Your task to perform on an android device: Go to display settings Image 0: 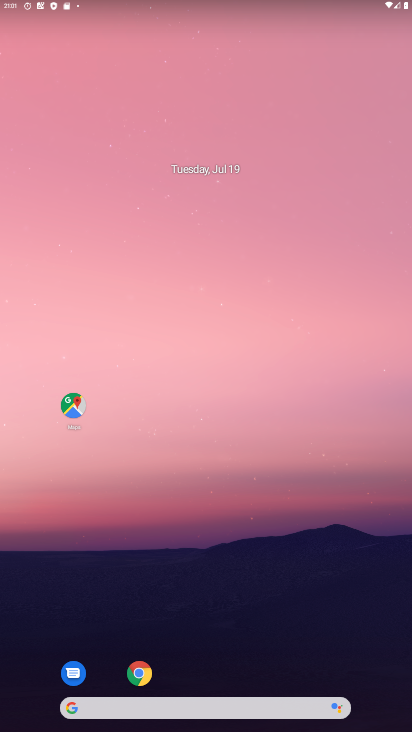
Step 0: drag from (209, 676) to (278, 4)
Your task to perform on an android device: Go to display settings Image 1: 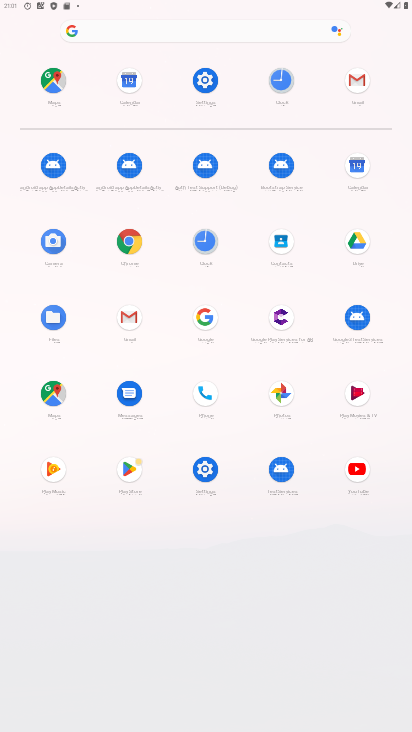
Step 1: click (214, 478)
Your task to perform on an android device: Go to display settings Image 2: 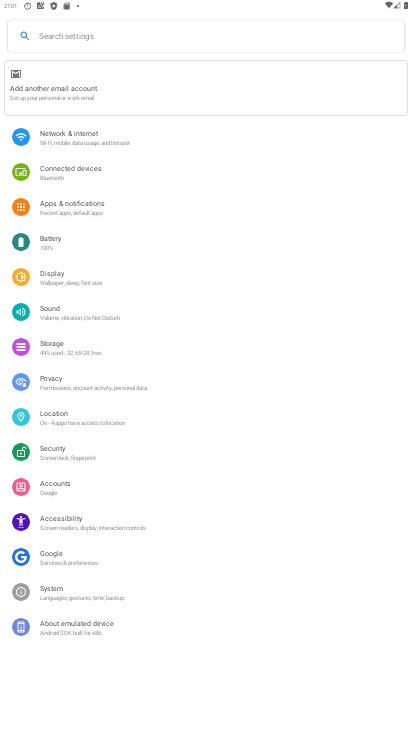
Step 2: click (80, 278)
Your task to perform on an android device: Go to display settings Image 3: 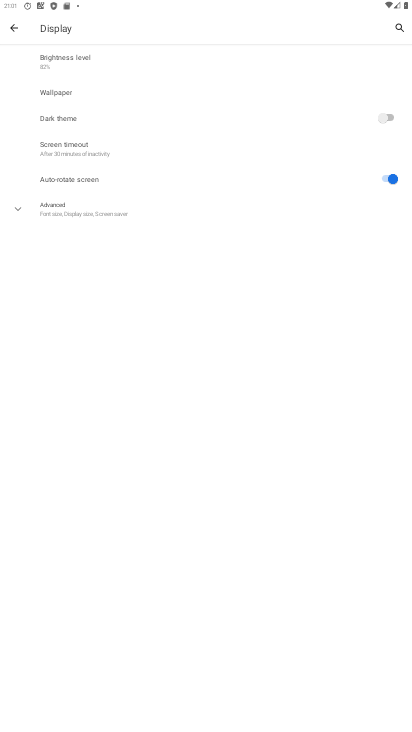
Step 3: task complete